Your task to perform on an android device: move an email to a new category in the gmail app Image 0: 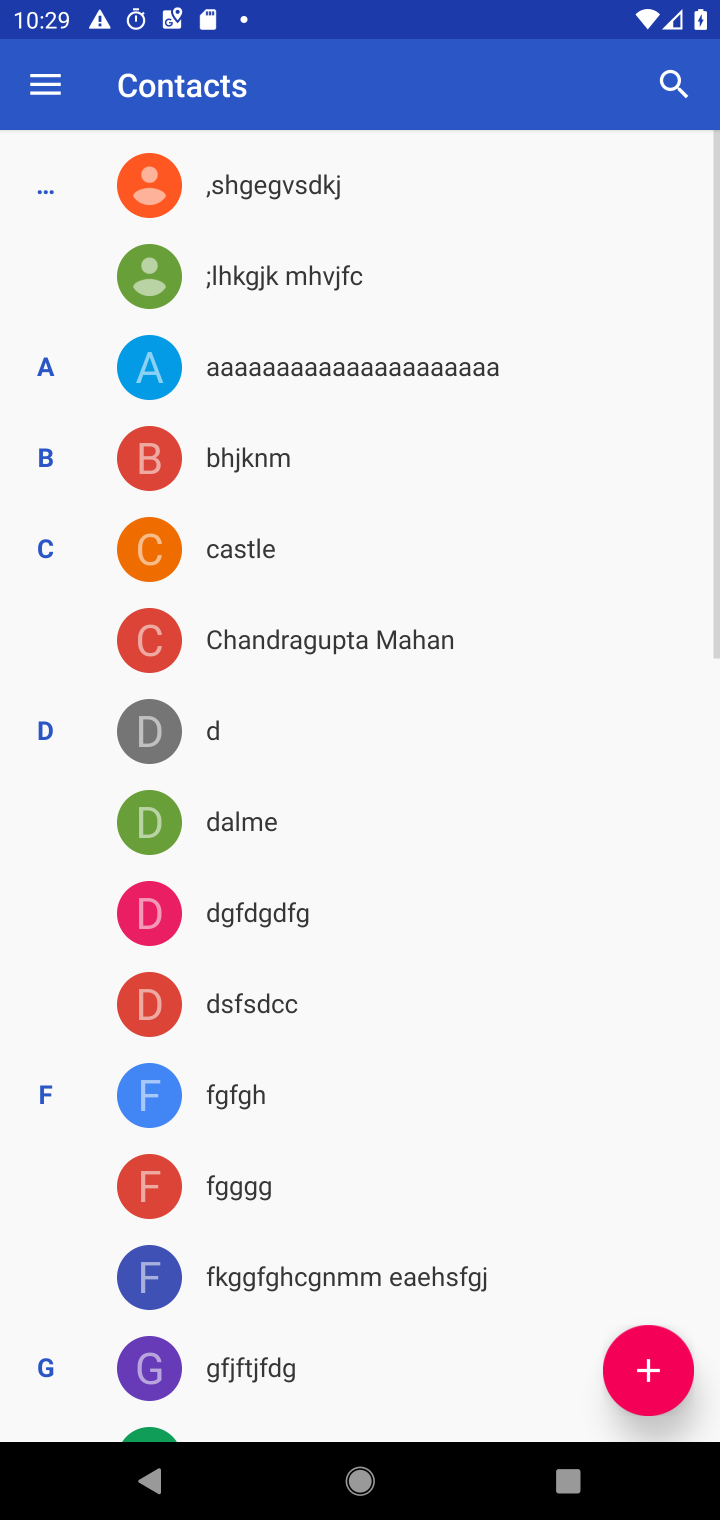
Step 0: press home button
Your task to perform on an android device: move an email to a new category in the gmail app Image 1: 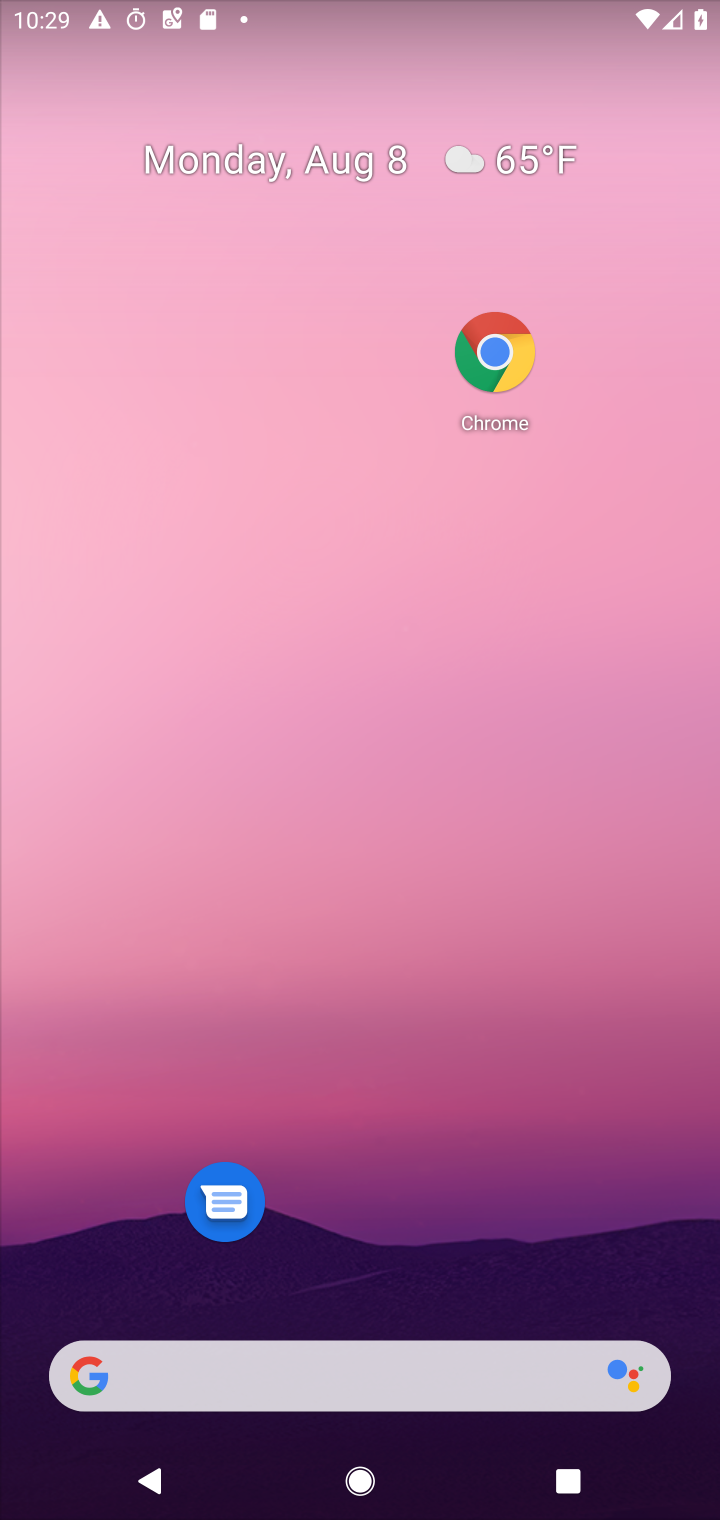
Step 1: drag from (432, 1175) to (521, 33)
Your task to perform on an android device: move an email to a new category in the gmail app Image 2: 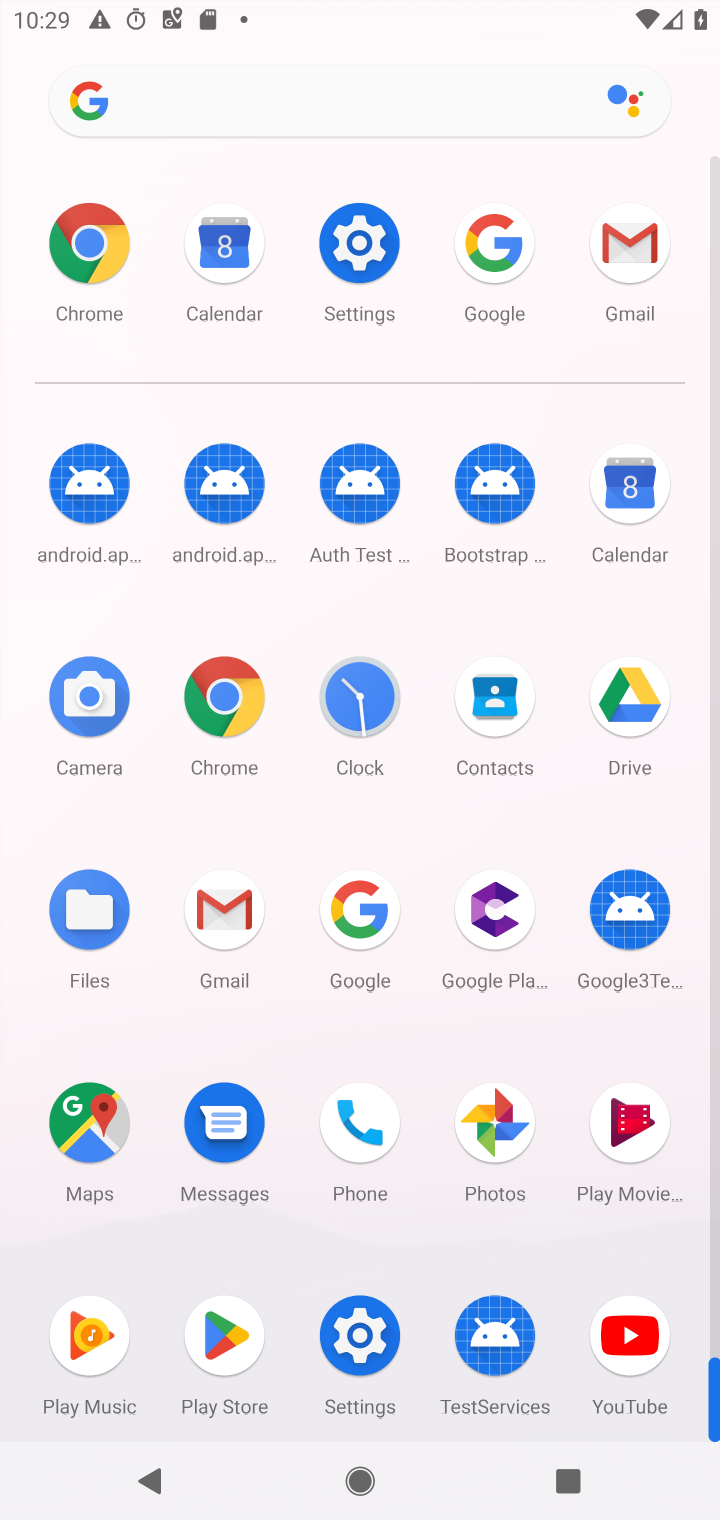
Step 2: click (233, 941)
Your task to perform on an android device: move an email to a new category in the gmail app Image 3: 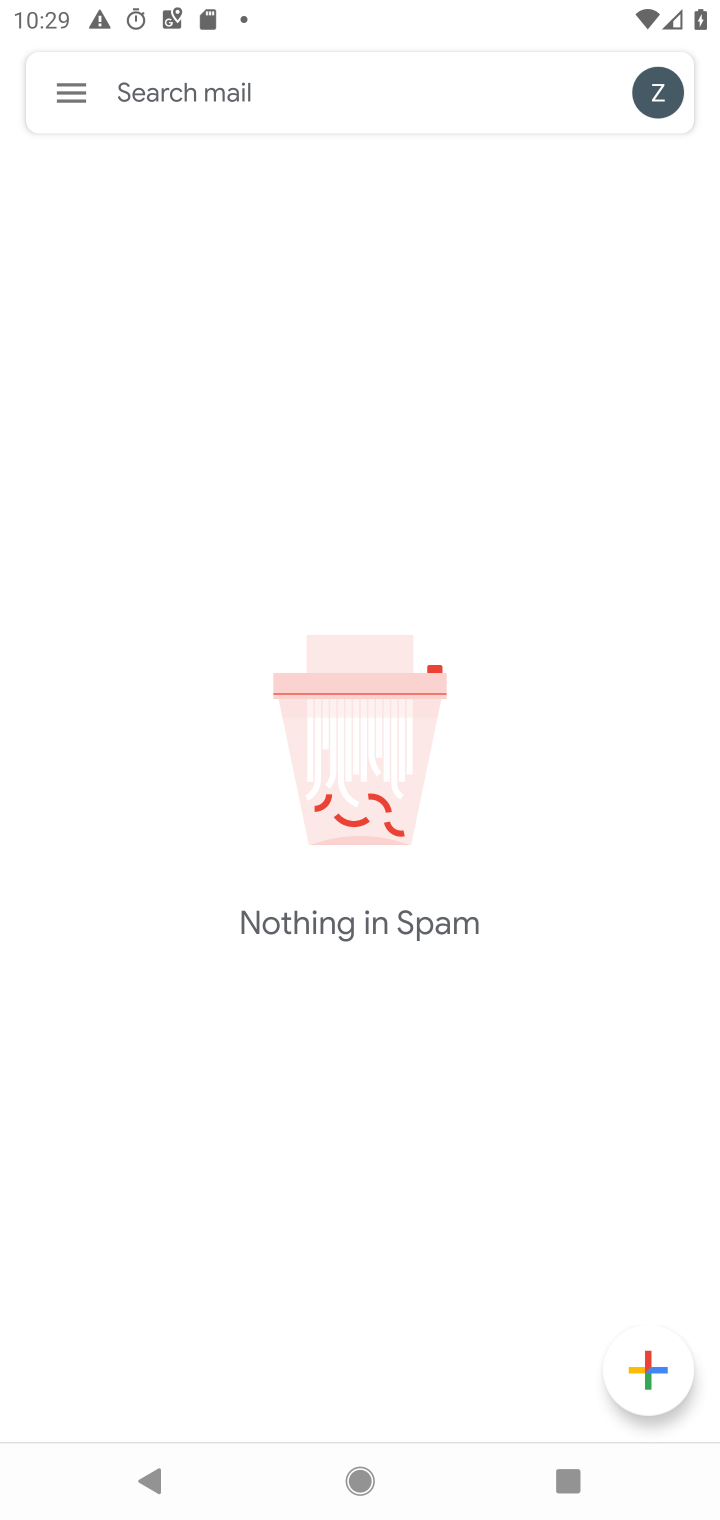
Step 3: click (82, 100)
Your task to perform on an android device: move an email to a new category in the gmail app Image 4: 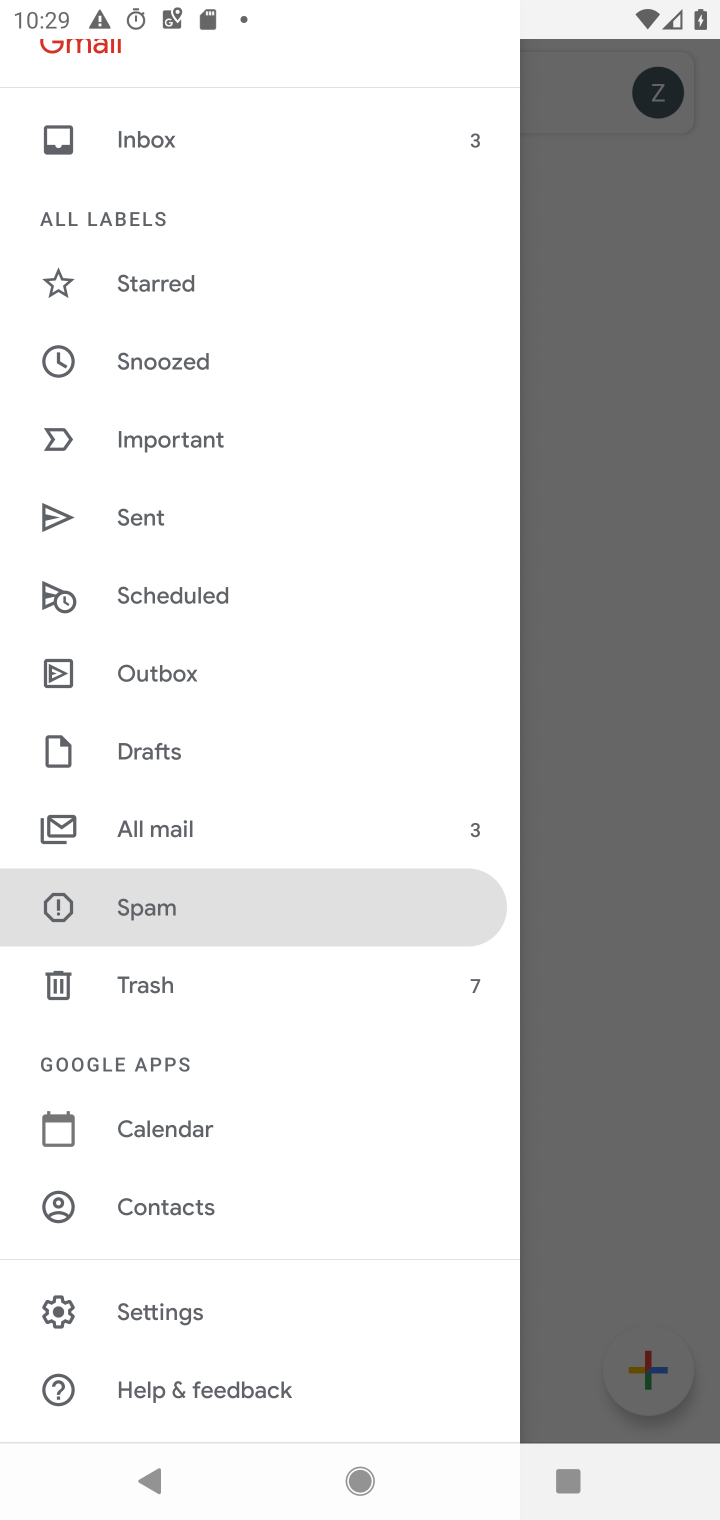
Step 4: click (209, 837)
Your task to perform on an android device: move an email to a new category in the gmail app Image 5: 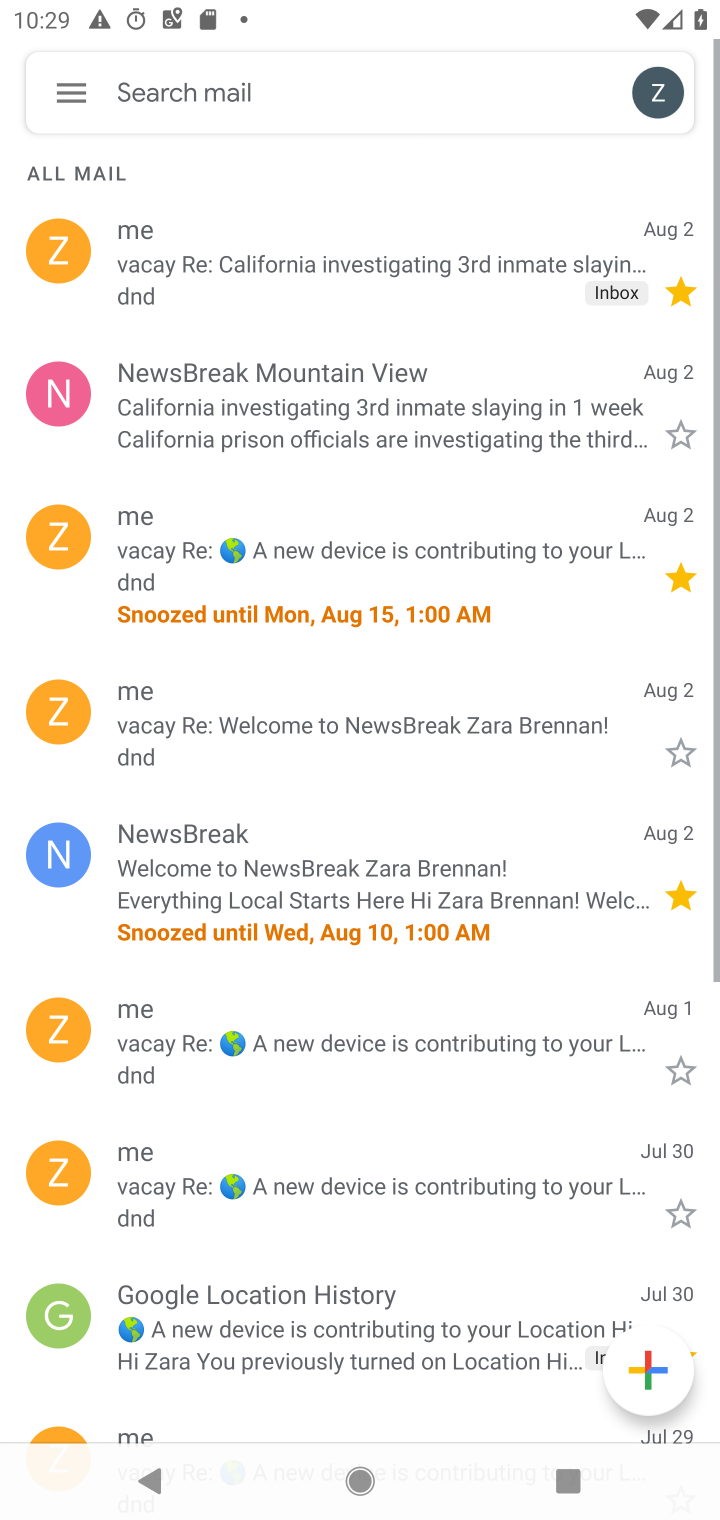
Step 5: click (253, 255)
Your task to perform on an android device: move an email to a new category in the gmail app Image 6: 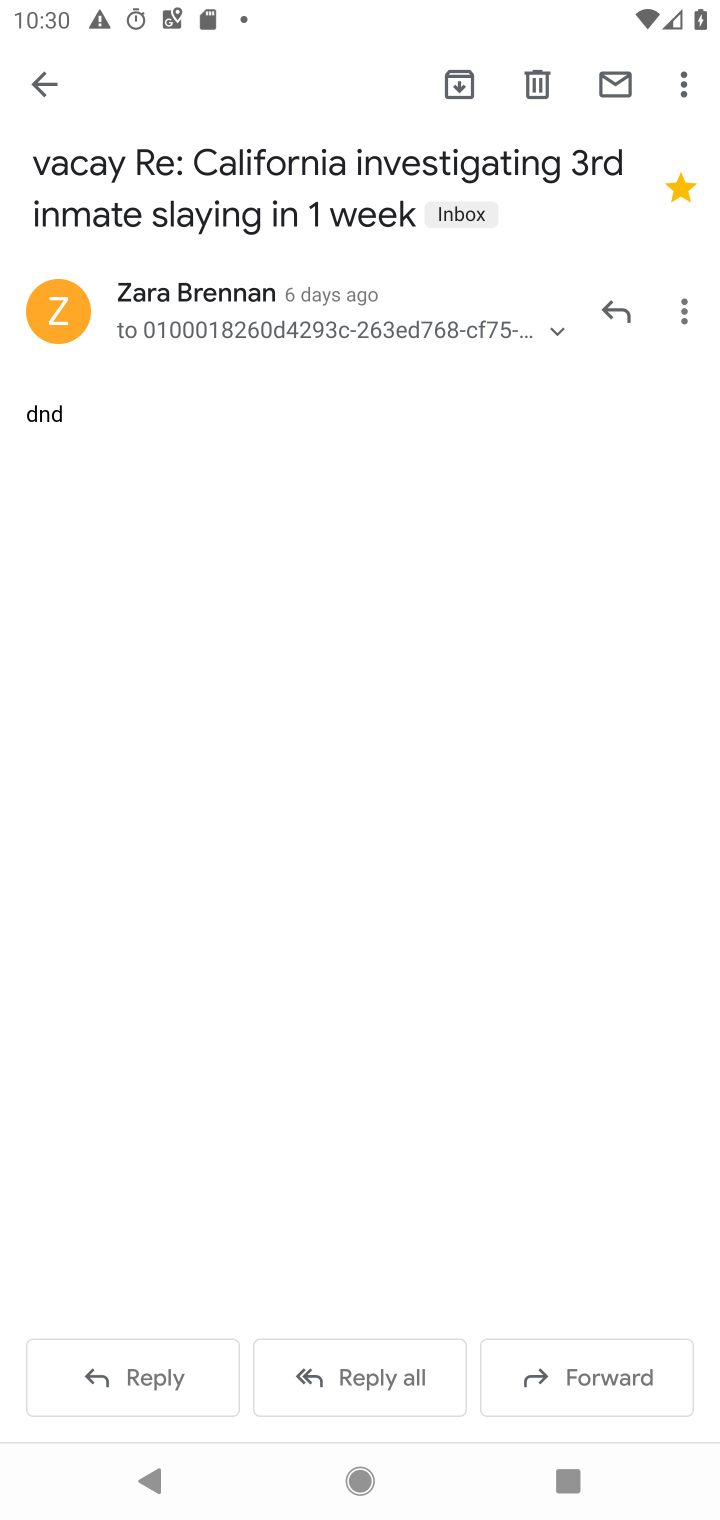
Step 6: click (675, 81)
Your task to perform on an android device: move an email to a new category in the gmail app Image 7: 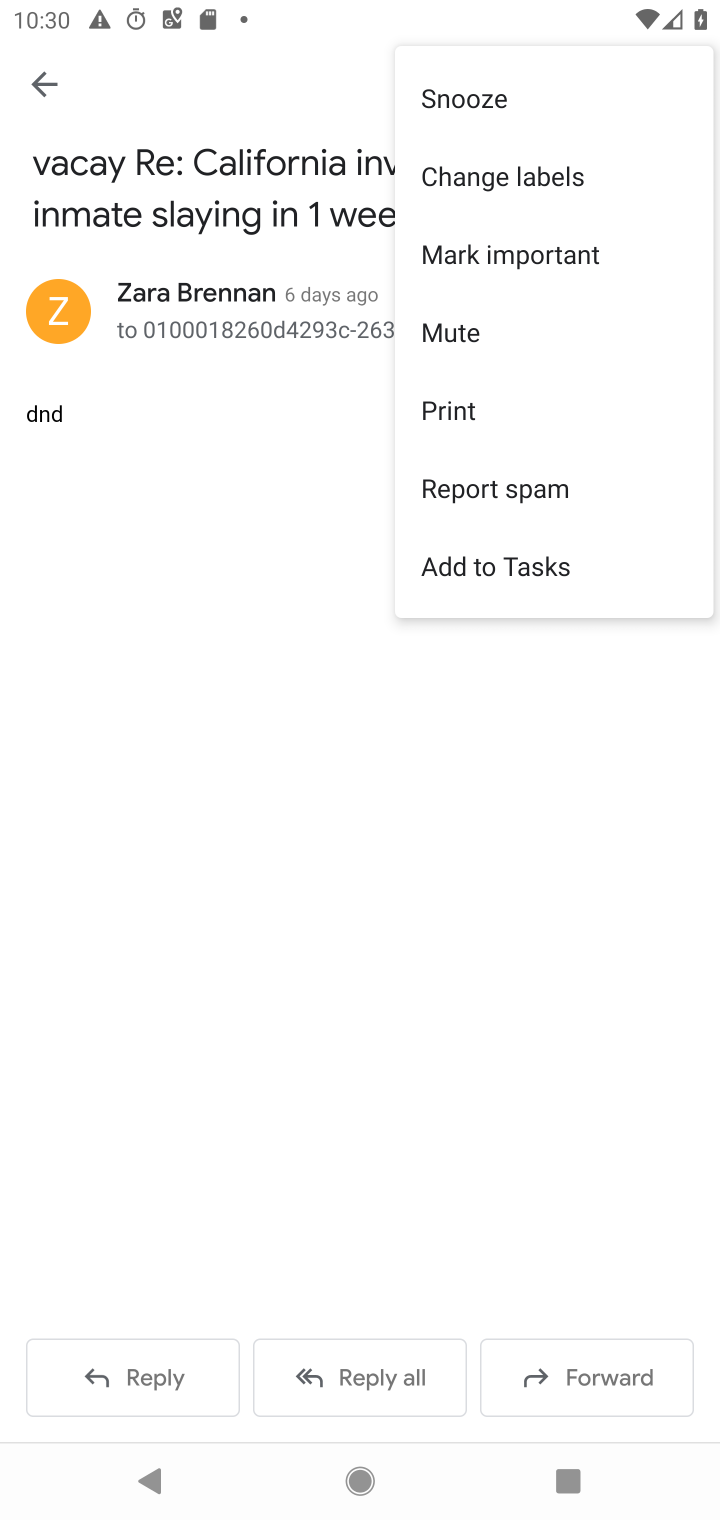
Step 7: click (547, 175)
Your task to perform on an android device: move an email to a new category in the gmail app Image 8: 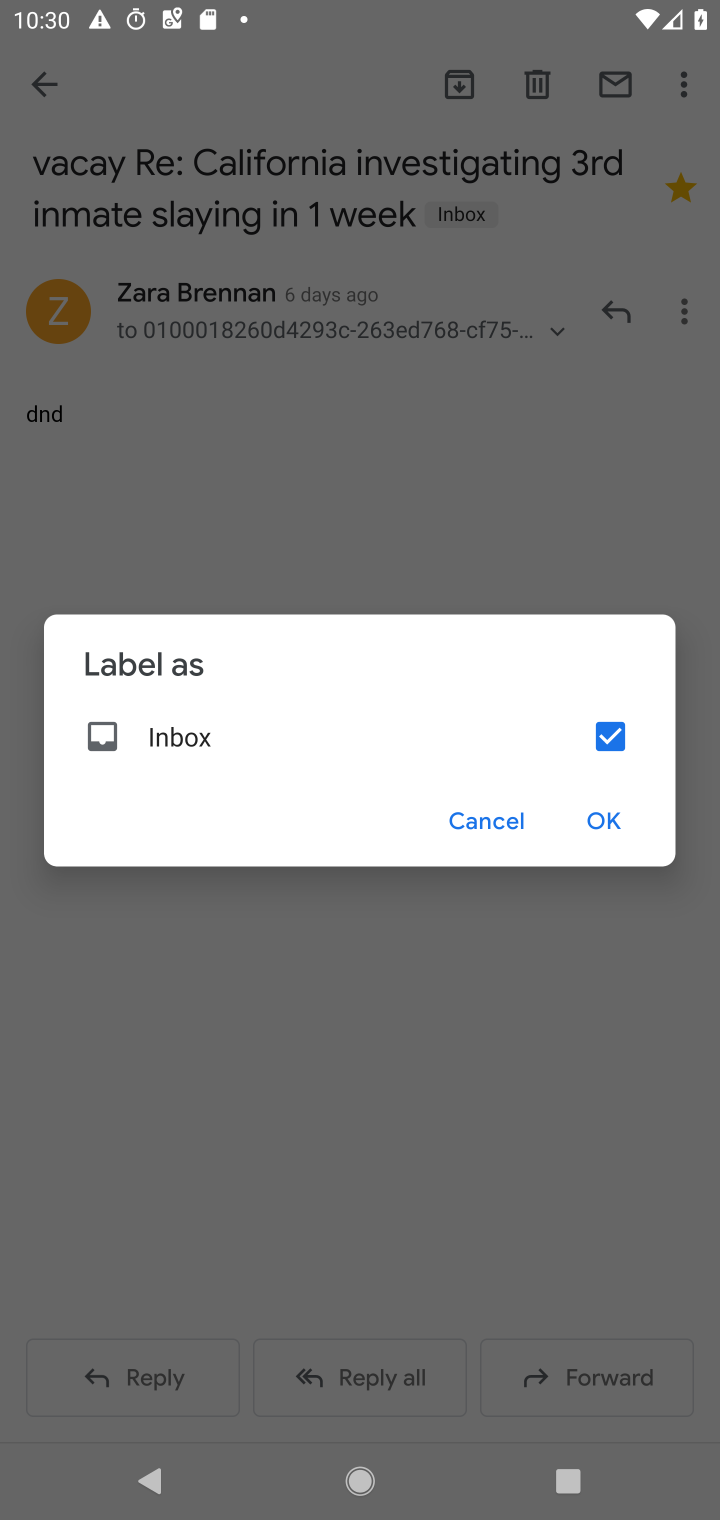
Step 8: click (603, 821)
Your task to perform on an android device: move an email to a new category in the gmail app Image 9: 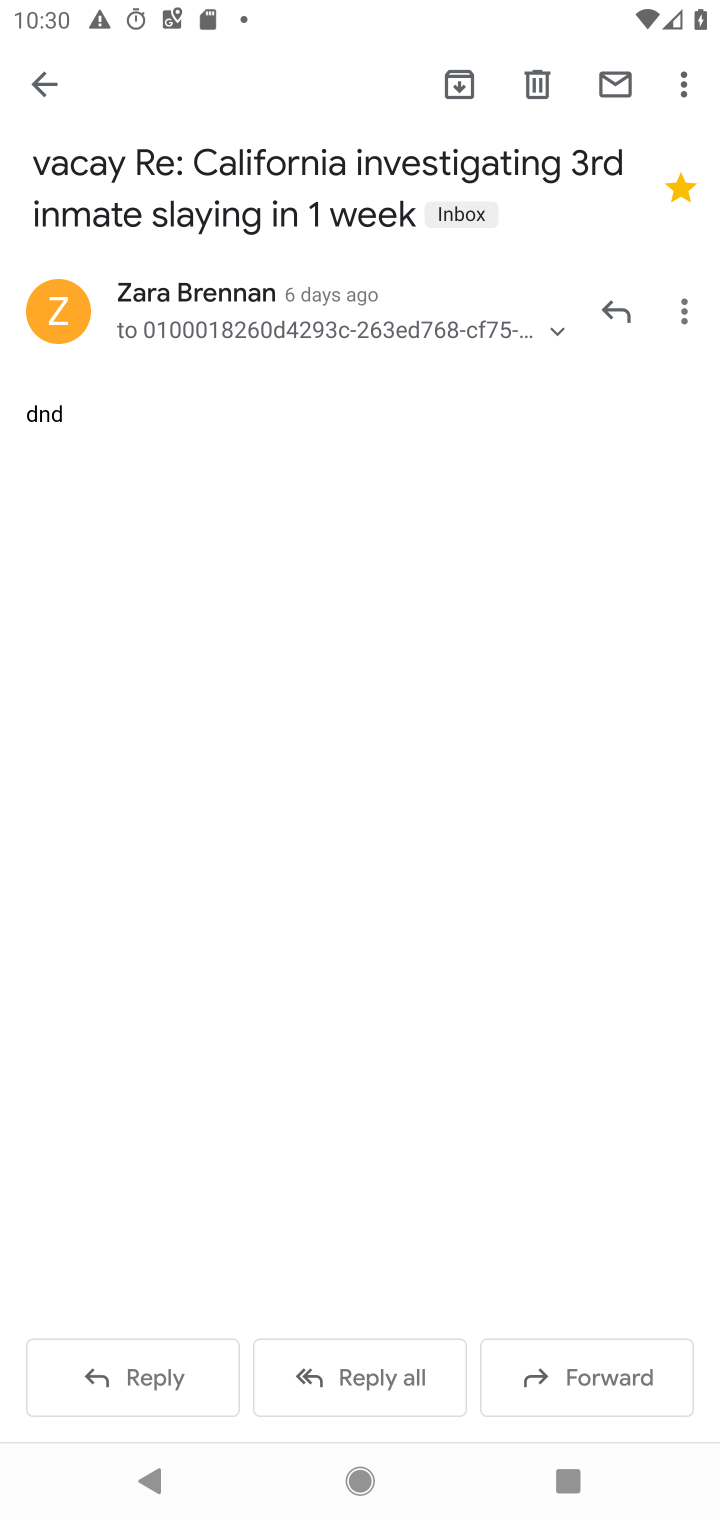
Step 9: task complete